Your task to perform on an android device: check android version Image 0: 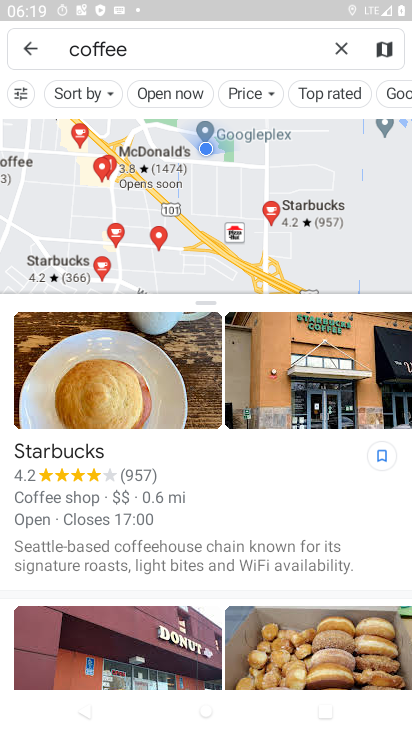
Step 0: press home button
Your task to perform on an android device: check android version Image 1: 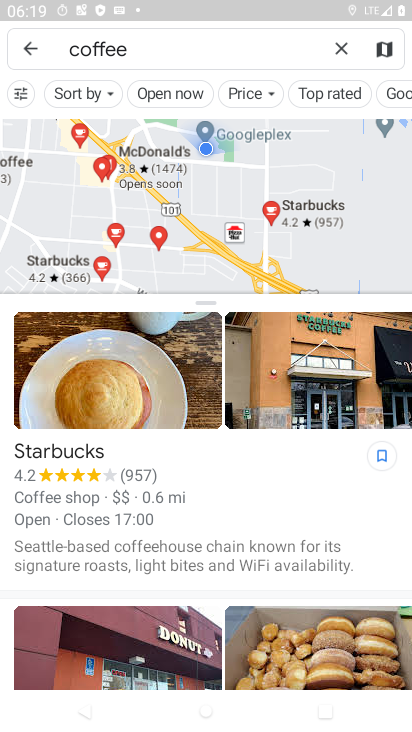
Step 1: press home button
Your task to perform on an android device: check android version Image 2: 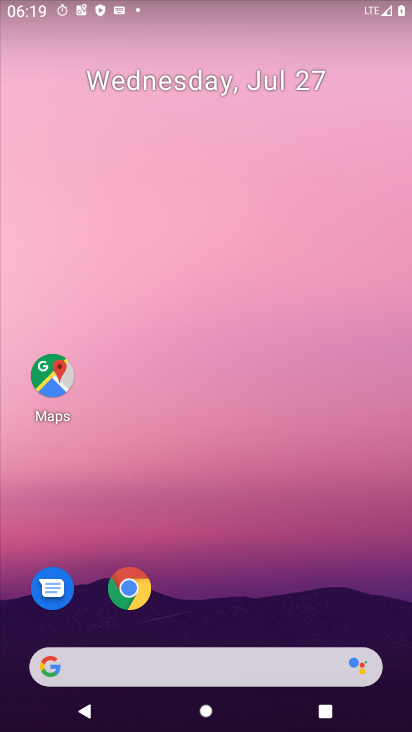
Step 2: drag from (337, 614) to (313, 35)
Your task to perform on an android device: check android version Image 3: 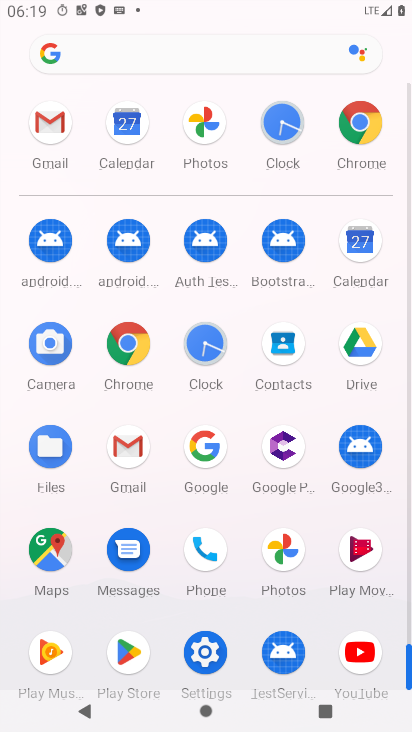
Step 3: click (189, 639)
Your task to perform on an android device: check android version Image 4: 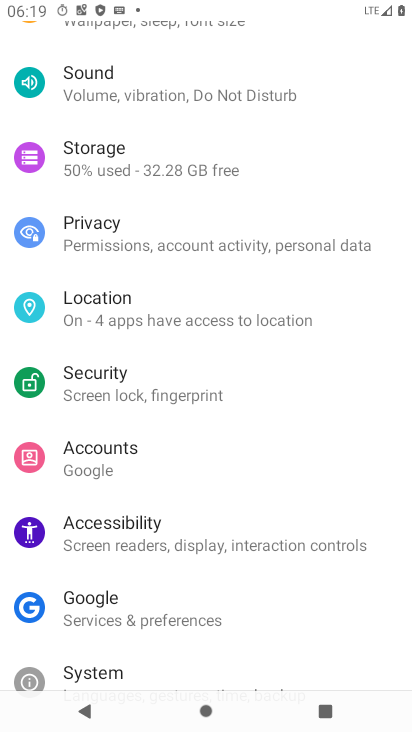
Step 4: drag from (250, 644) to (325, 187)
Your task to perform on an android device: check android version Image 5: 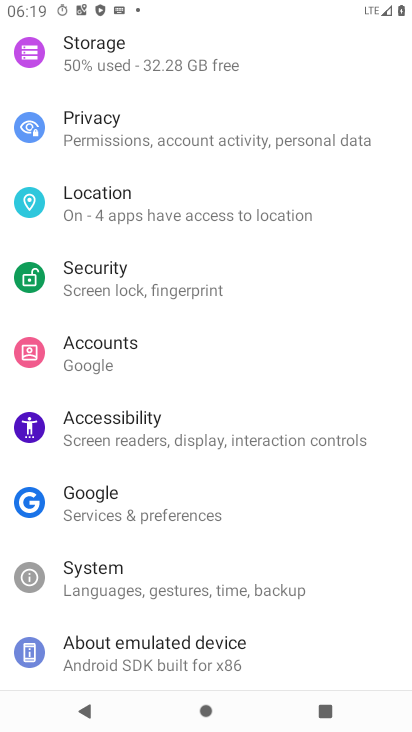
Step 5: click (260, 664)
Your task to perform on an android device: check android version Image 6: 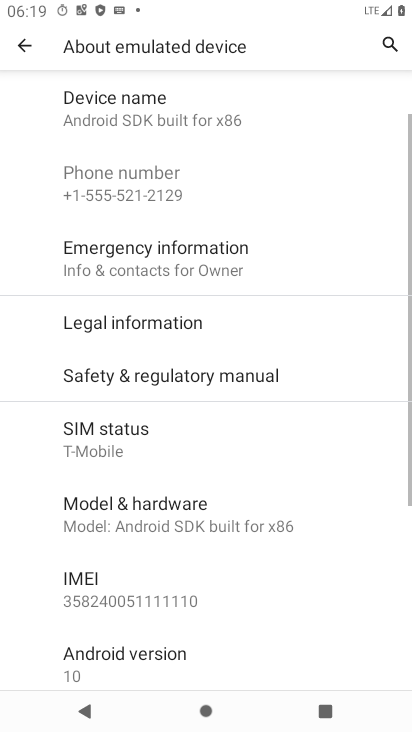
Step 6: click (250, 662)
Your task to perform on an android device: check android version Image 7: 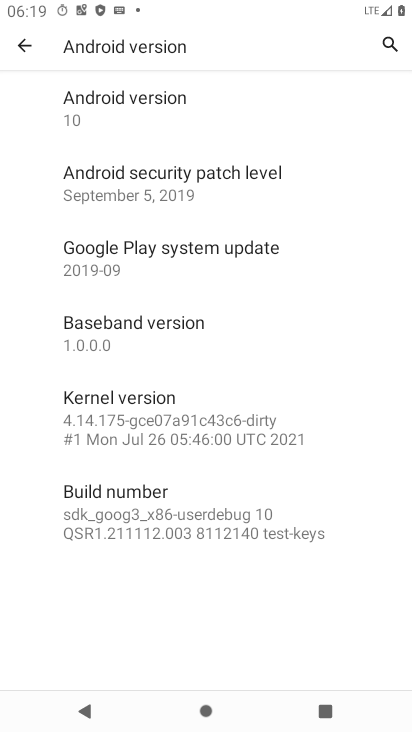
Step 7: task complete